Your task to perform on an android device: set the timer Image 0: 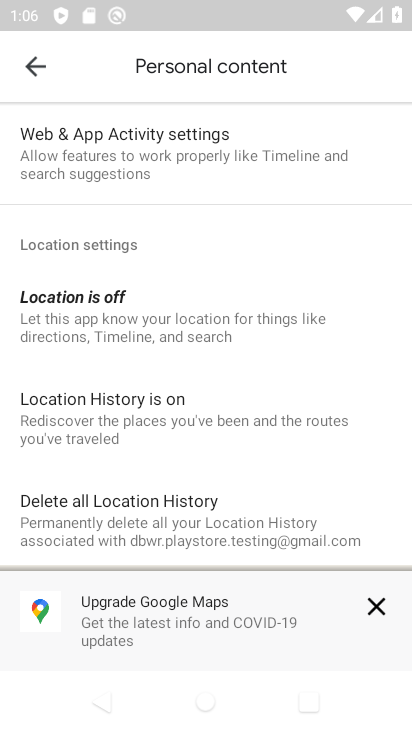
Step 0: press home button
Your task to perform on an android device: set the timer Image 1: 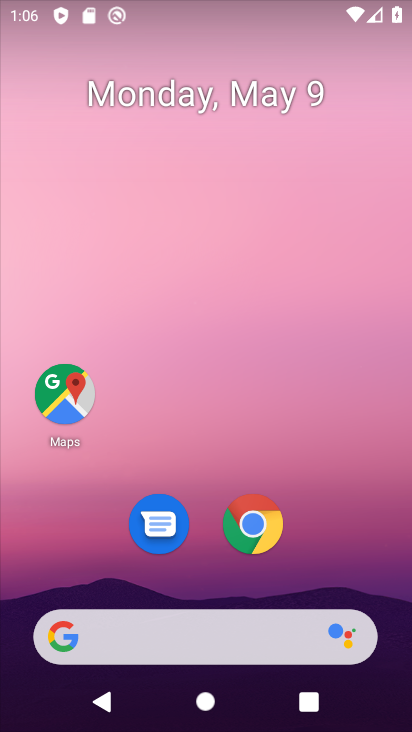
Step 1: drag from (198, 496) to (225, 41)
Your task to perform on an android device: set the timer Image 2: 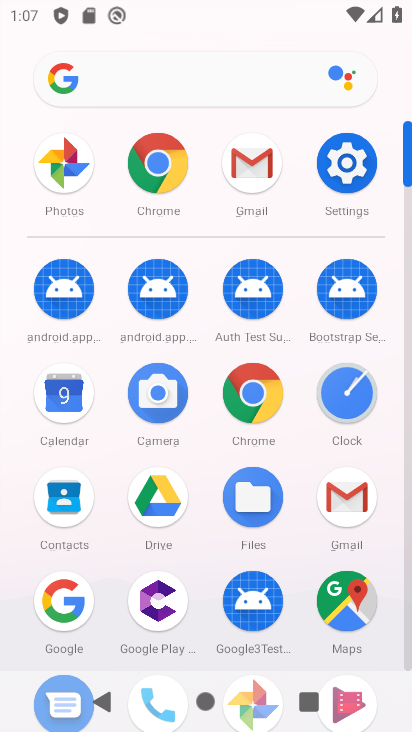
Step 2: click (329, 393)
Your task to perform on an android device: set the timer Image 3: 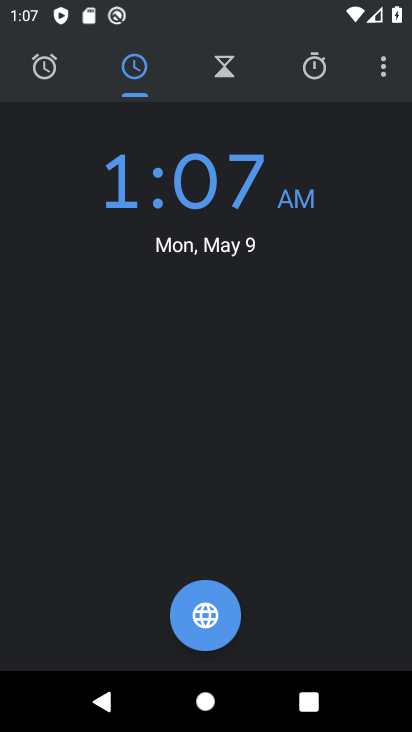
Step 3: click (232, 62)
Your task to perform on an android device: set the timer Image 4: 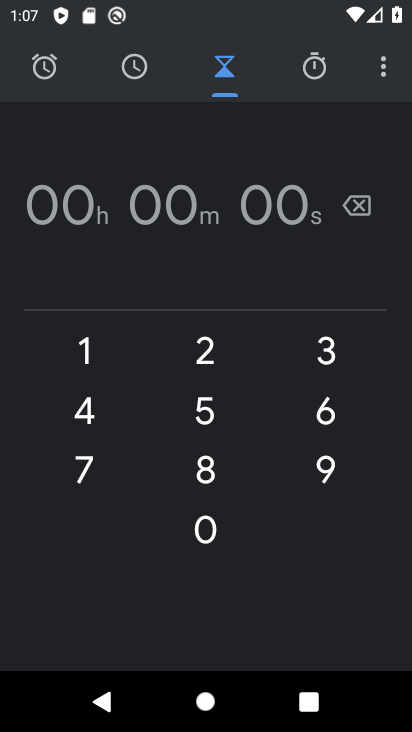
Step 4: click (92, 341)
Your task to perform on an android device: set the timer Image 5: 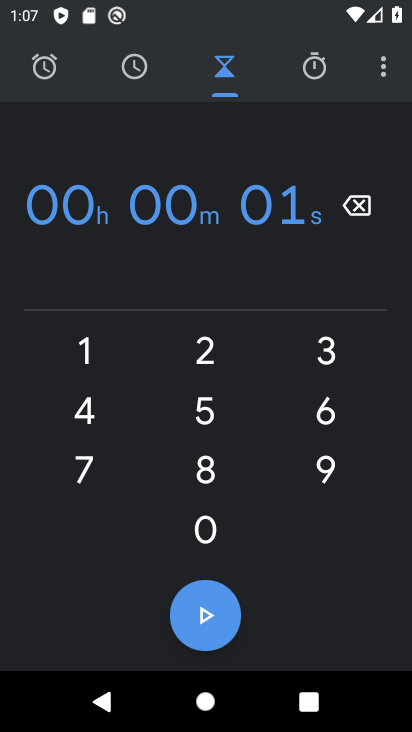
Step 5: click (92, 342)
Your task to perform on an android device: set the timer Image 6: 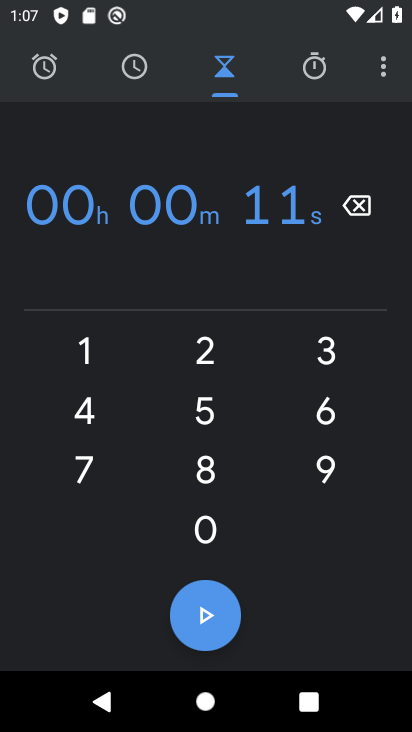
Step 6: task complete